Your task to perform on an android device: check google app version Image 0: 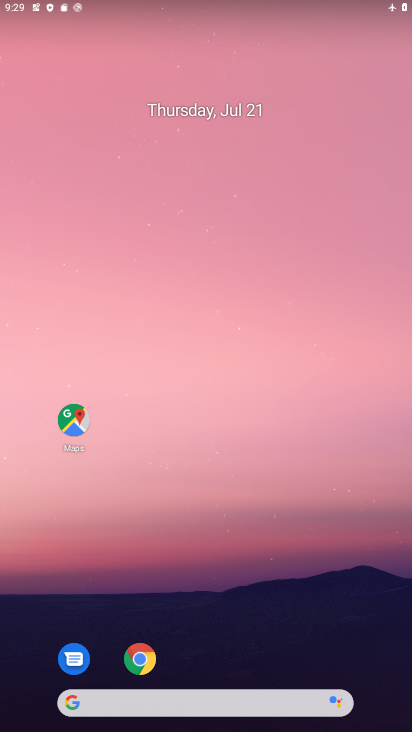
Step 0: drag from (233, 689) to (208, 43)
Your task to perform on an android device: check google app version Image 1: 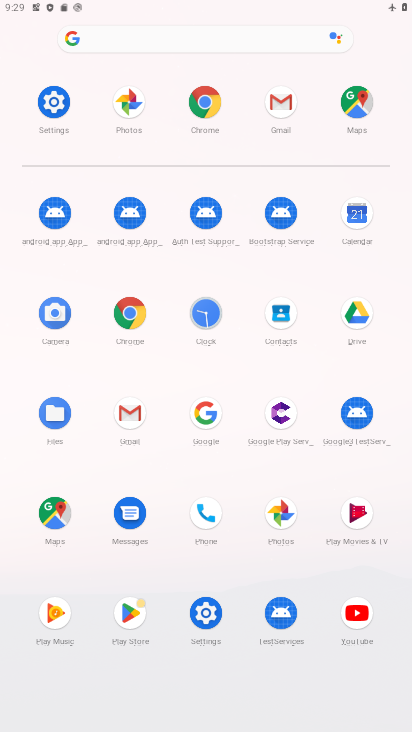
Step 1: click (198, 413)
Your task to perform on an android device: check google app version Image 2: 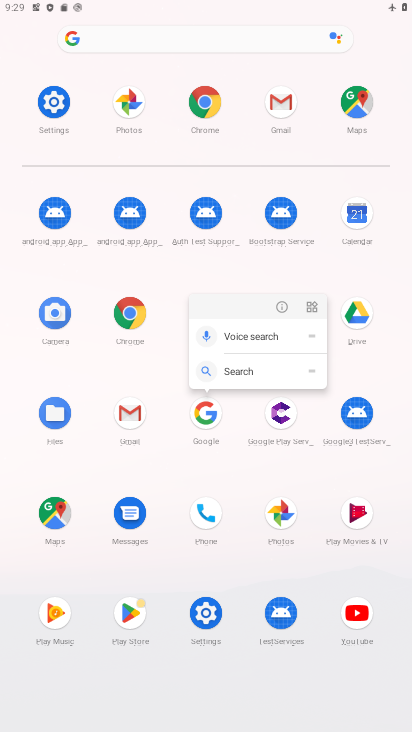
Step 2: click (280, 300)
Your task to perform on an android device: check google app version Image 3: 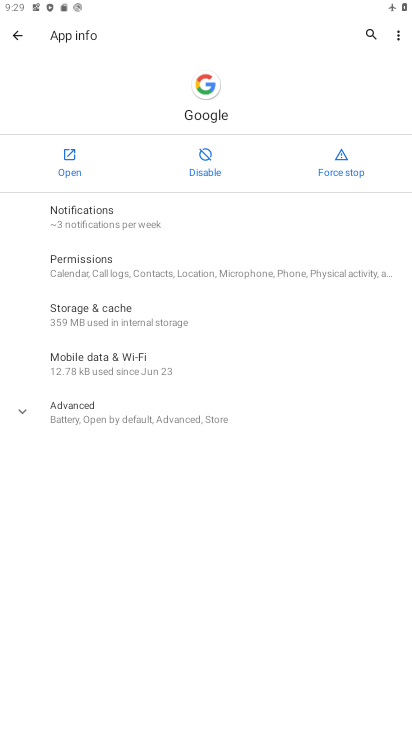
Step 3: click (97, 419)
Your task to perform on an android device: check google app version Image 4: 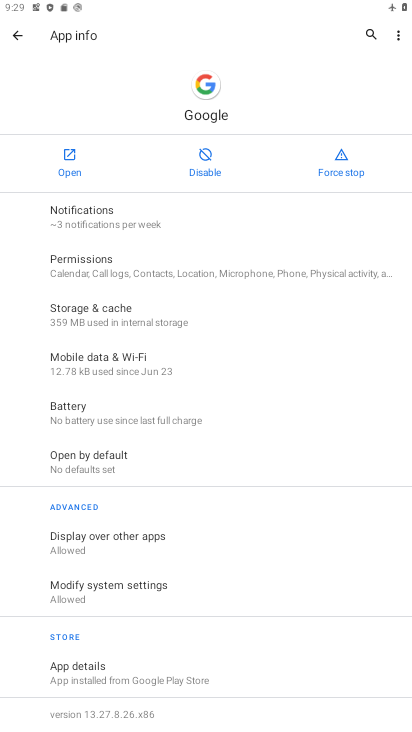
Step 4: task complete